Your task to perform on an android device: Open Maps and search for coffee Image 0: 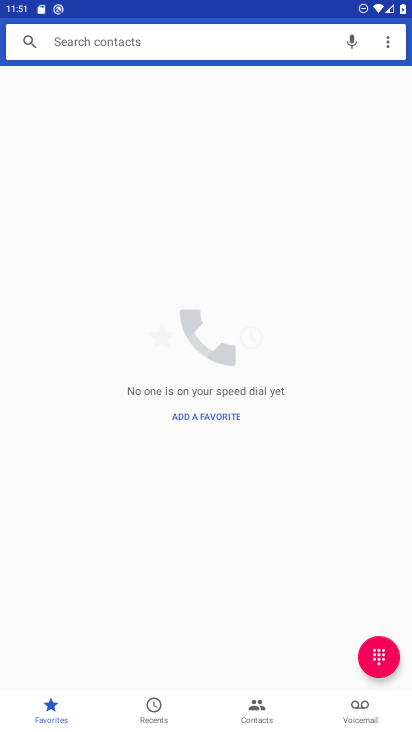
Step 0: click (304, 61)
Your task to perform on an android device: Open Maps and search for coffee Image 1: 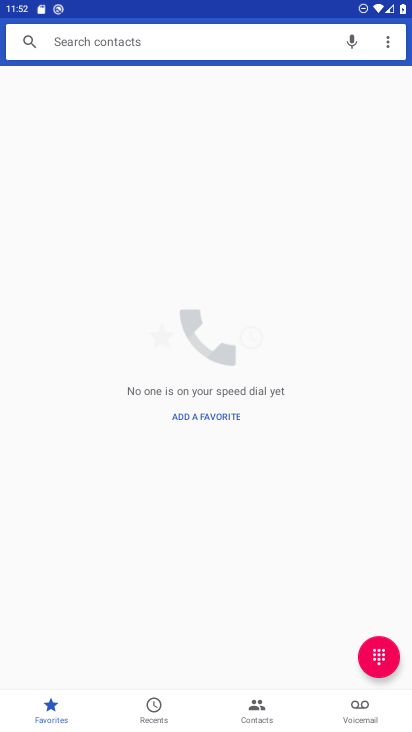
Step 1: click (282, 467)
Your task to perform on an android device: Open Maps and search for coffee Image 2: 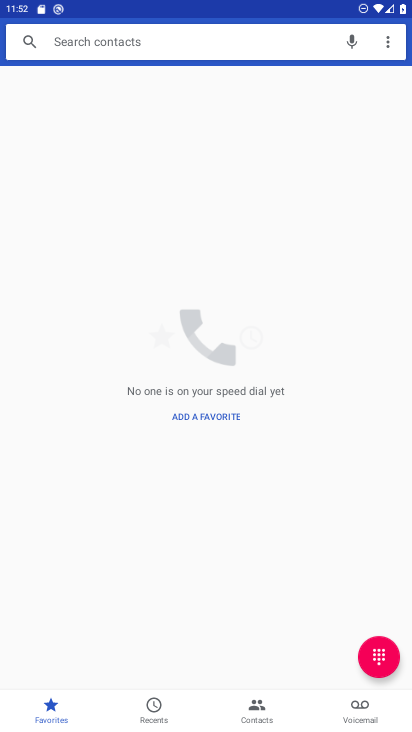
Step 2: press home button
Your task to perform on an android device: Open Maps and search for coffee Image 3: 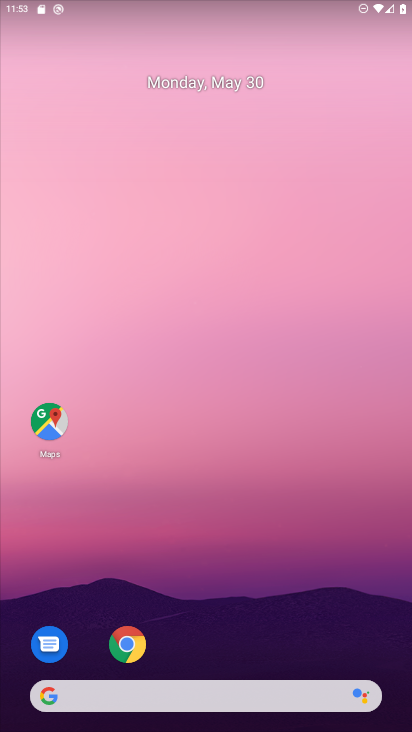
Step 3: drag from (170, 641) to (206, 52)
Your task to perform on an android device: Open Maps and search for coffee Image 4: 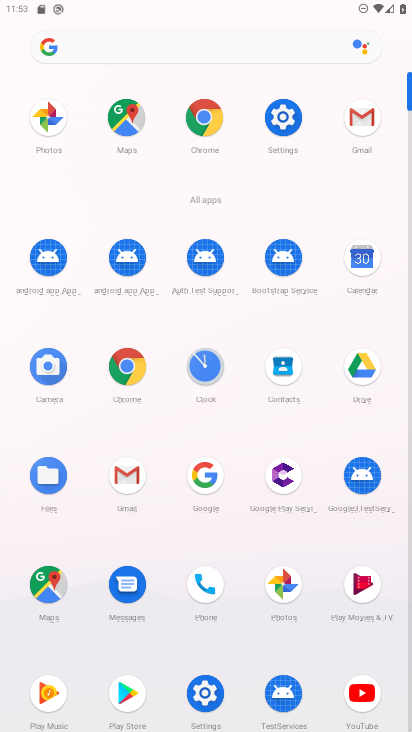
Step 4: click (54, 582)
Your task to perform on an android device: Open Maps and search for coffee Image 5: 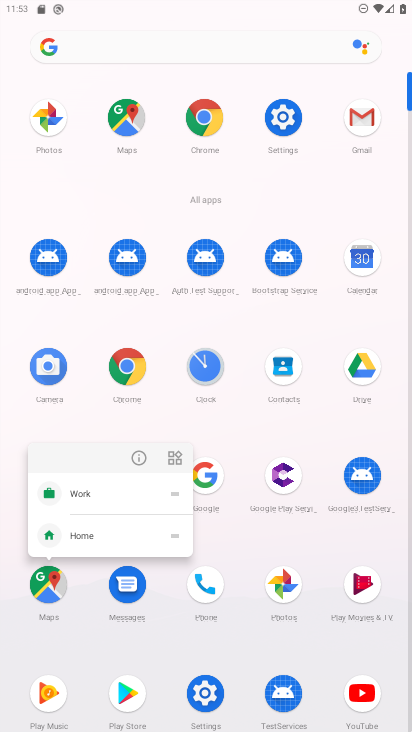
Step 5: click (130, 454)
Your task to perform on an android device: Open Maps and search for coffee Image 6: 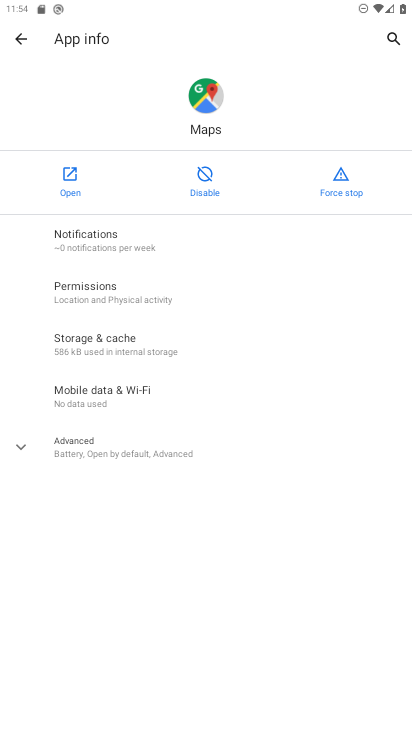
Step 6: click (88, 194)
Your task to perform on an android device: Open Maps and search for coffee Image 7: 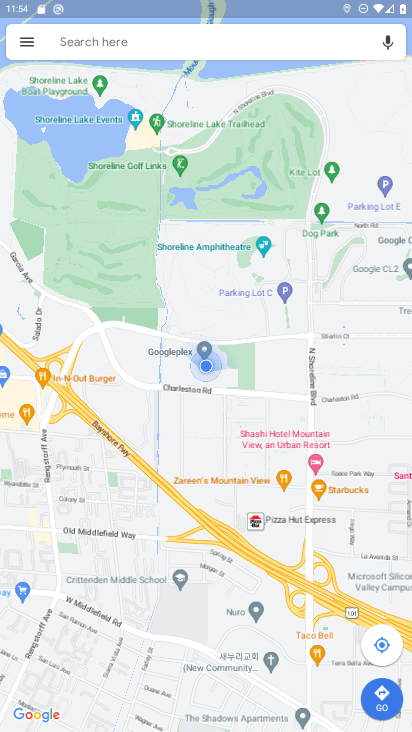
Step 7: click (117, 45)
Your task to perform on an android device: Open Maps and search for coffee Image 8: 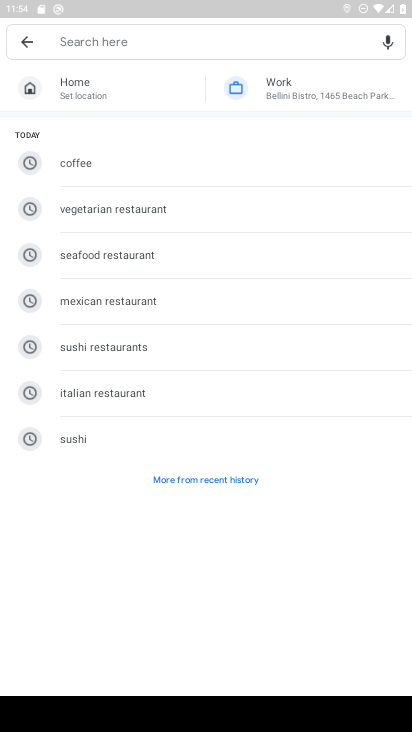
Step 8: click (106, 177)
Your task to perform on an android device: Open Maps and search for coffee Image 9: 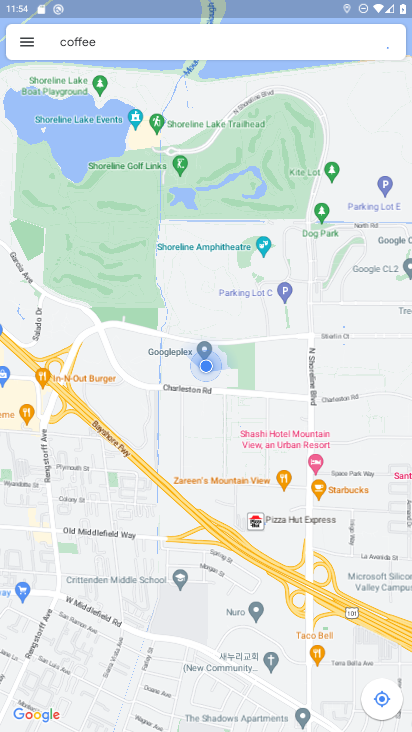
Step 9: task complete